Your task to perform on an android device: Go to settings Image 0: 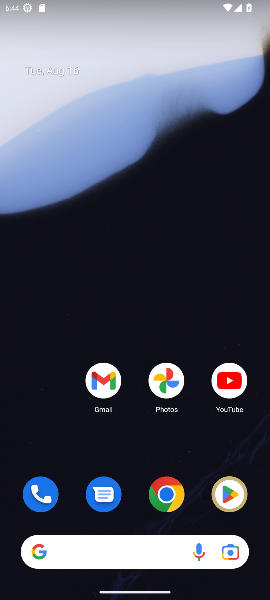
Step 0: drag from (63, 442) to (44, 134)
Your task to perform on an android device: Go to settings Image 1: 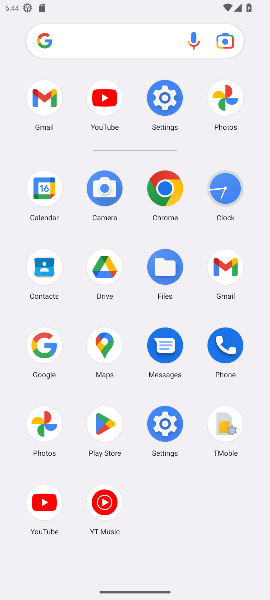
Step 1: click (156, 412)
Your task to perform on an android device: Go to settings Image 2: 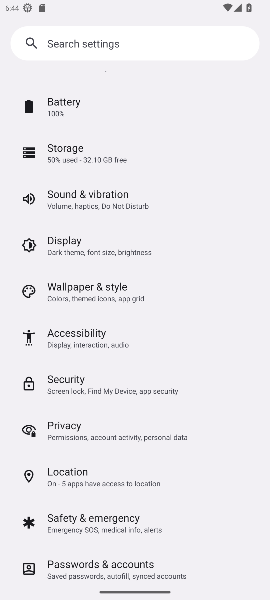
Step 2: task complete